Your task to perform on an android device: Go to settings Image 0: 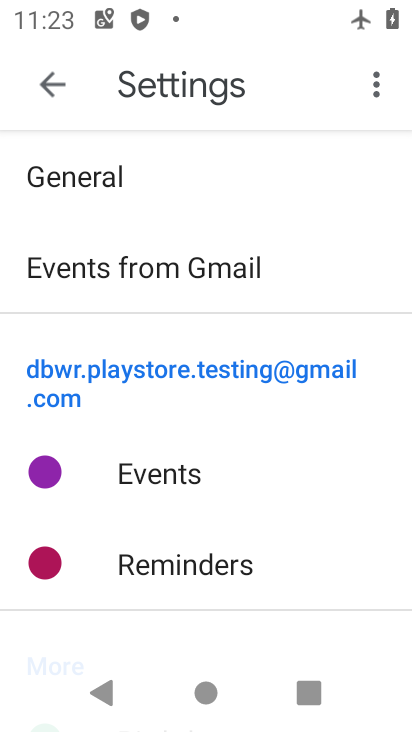
Step 0: press home button
Your task to perform on an android device: Go to settings Image 1: 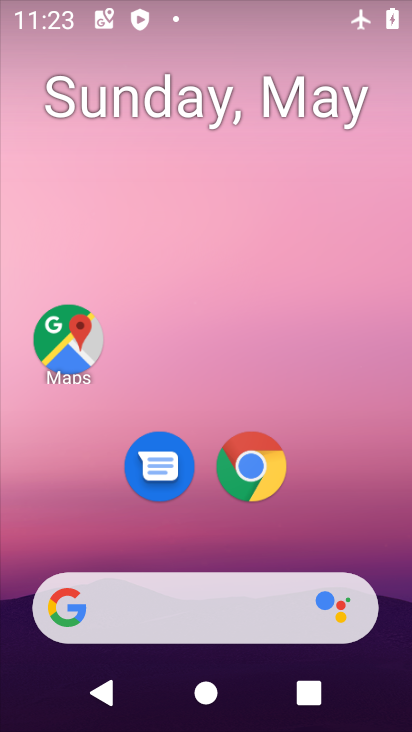
Step 1: drag from (349, 555) to (315, 54)
Your task to perform on an android device: Go to settings Image 2: 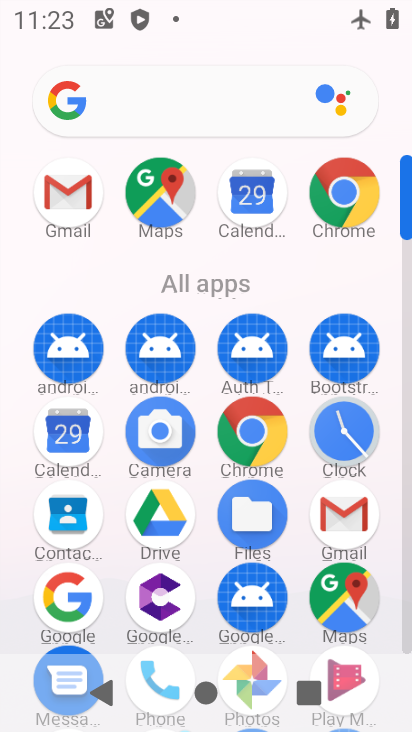
Step 2: drag from (202, 594) to (215, 165)
Your task to perform on an android device: Go to settings Image 3: 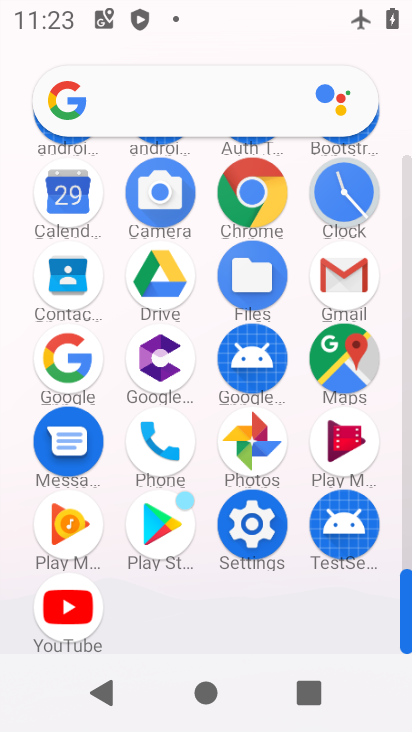
Step 3: click (259, 534)
Your task to perform on an android device: Go to settings Image 4: 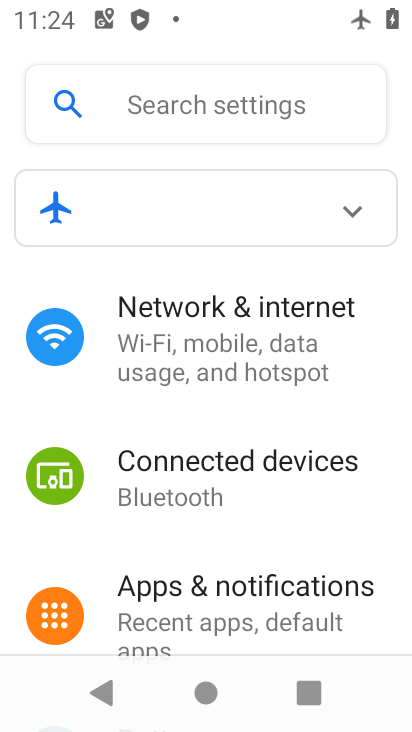
Step 4: task complete